Your task to perform on an android device: turn off picture-in-picture Image 0: 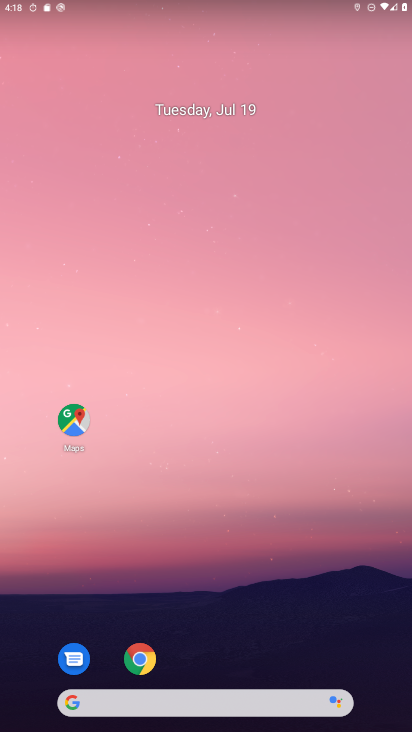
Step 0: drag from (248, 599) to (153, 1)
Your task to perform on an android device: turn off picture-in-picture Image 1: 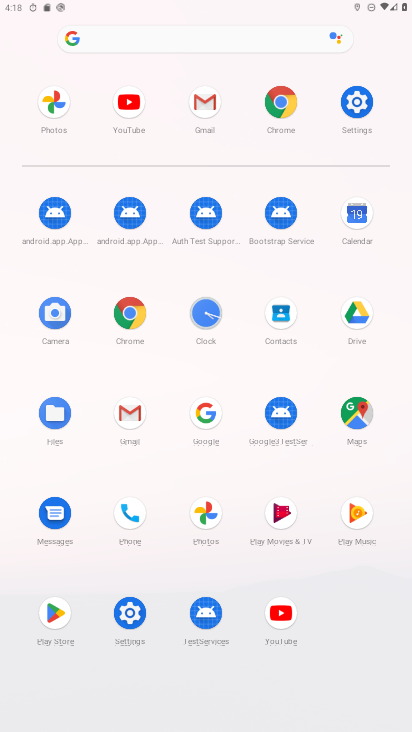
Step 1: click (116, 317)
Your task to perform on an android device: turn off picture-in-picture Image 2: 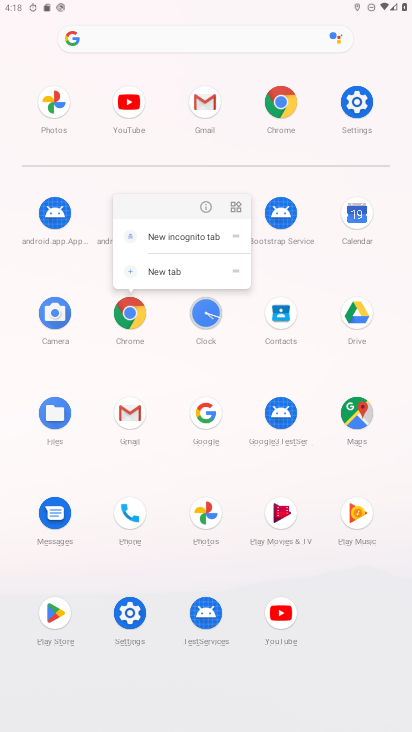
Step 2: click (205, 211)
Your task to perform on an android device: turn off picture-in-picture Image 3: 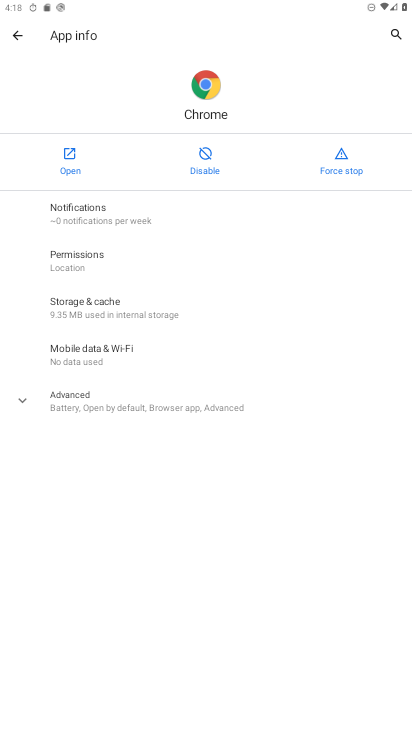
Step 3: click (99, 419)
Your task to perform on an android device: turn off picture-in-picture Image 4: 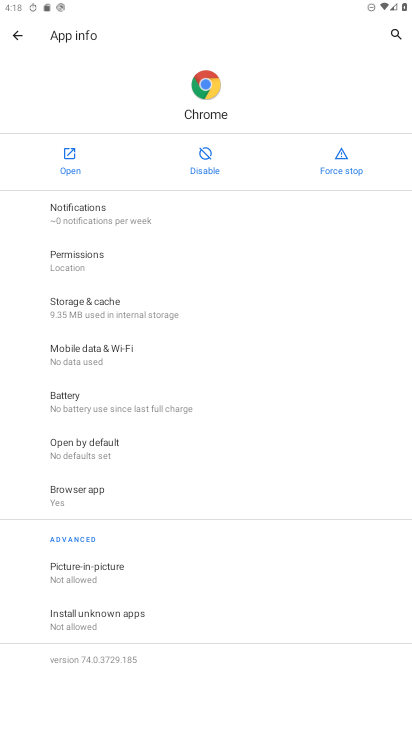
Step 4: click (84, 583)
Your task to perform on an android device: turn off picture-in-picture Image 5: 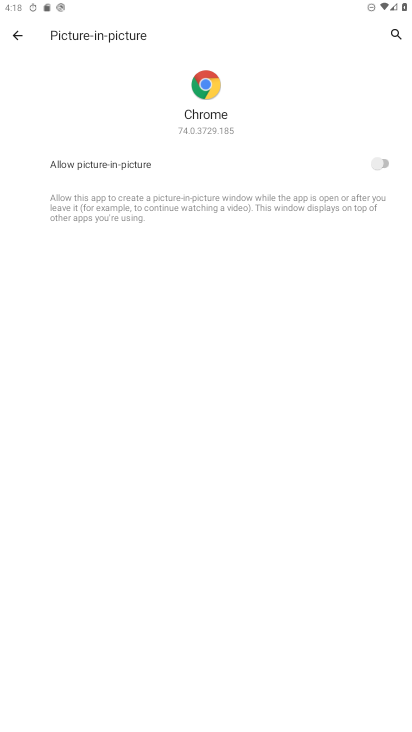
Step 5: task complete